Your task to perform on an android device: Open Chrome and go to the settings page Image 0: 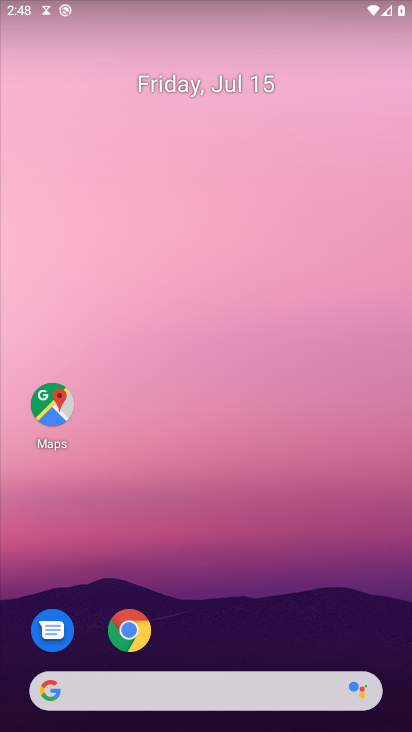
Step 0: press home button
Your task to perform on an android device: Open Chrome and go to the settings page Image 1: 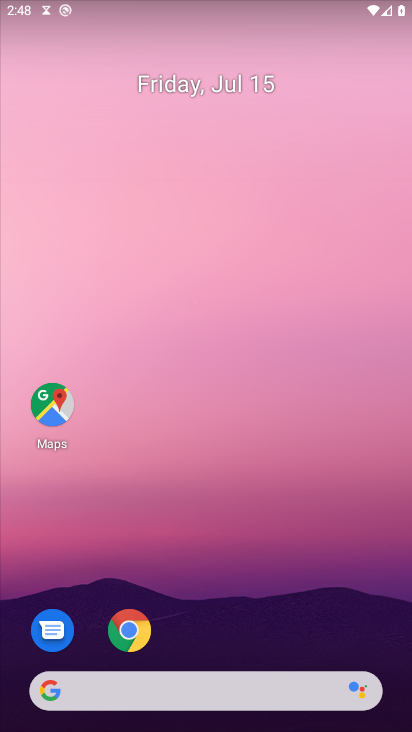
Step 1: drag from (227, 645) to (177, 8)
Your task to perform on an android device: Open Chrome and go to the settings page Image 2: 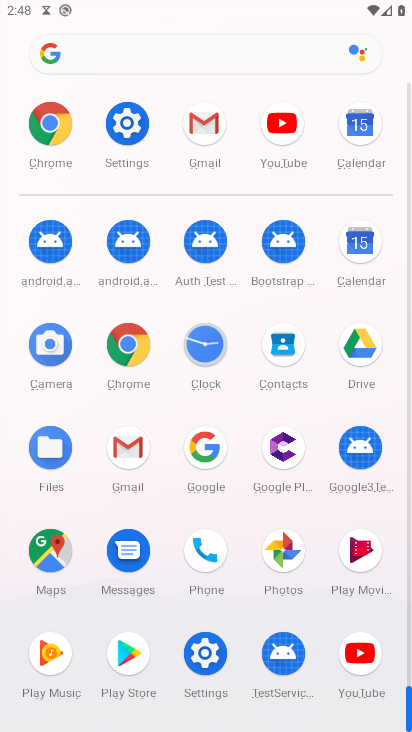
Step 2: click (49, 126)
Your task to perform on an android device: Open Chrome and go to the settings page Image 3: 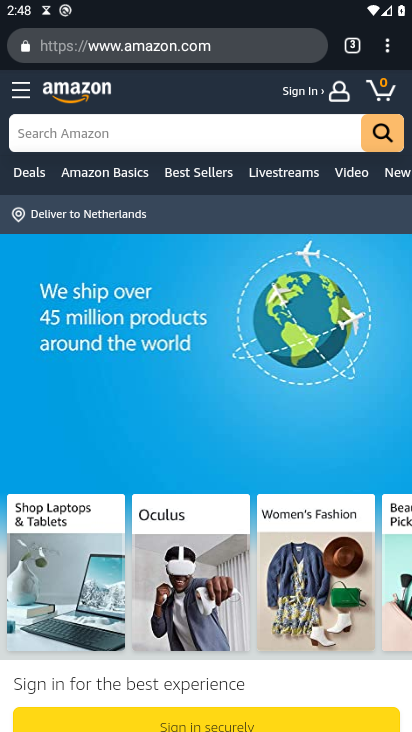
Step 3: task complete